Your task to perform on an android device: Open Reddit.com Image 0: 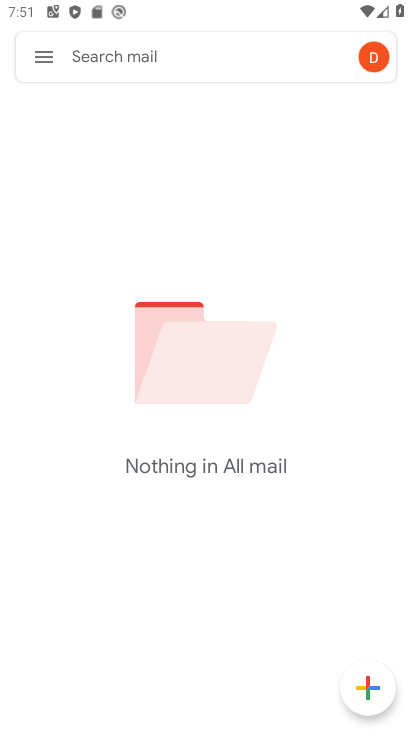
Step 0: press home button
Your task to perform on an android device: Open Reddit.com Image 1: 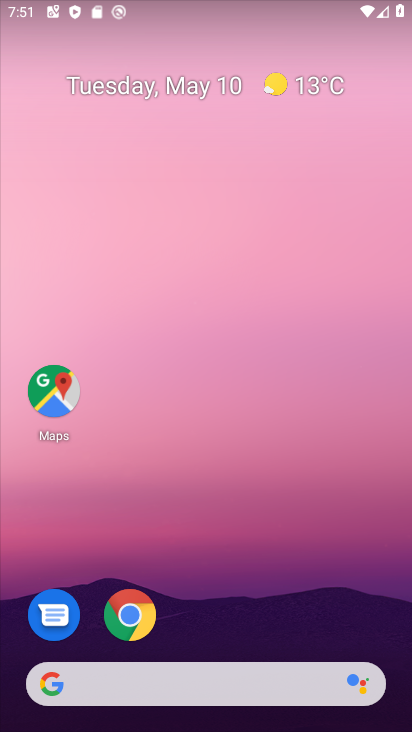
Step 1: click (132, 615)
Your task to perform on an android device: Open Reddit.com Image 2: 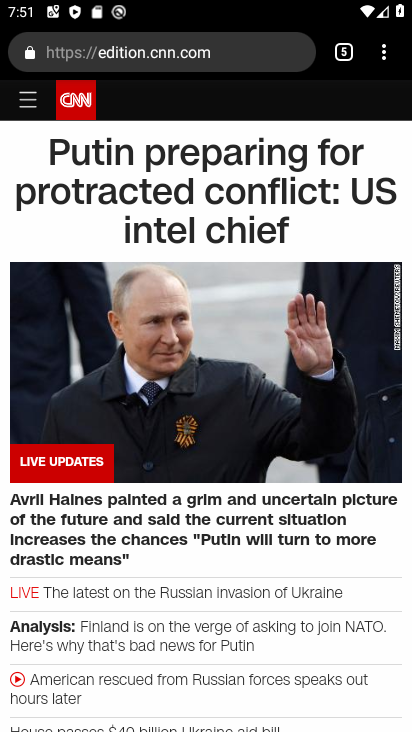
Step 2: click (382, 53)
Your task to perform on an android device: Open Reddit.com Image 3: 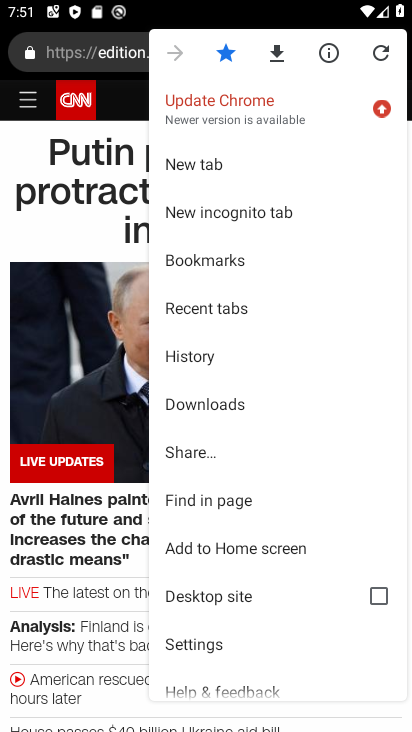
Step 3: click (199, 164)
Your task to perform on an android device: Open Reddit.com Image 4: 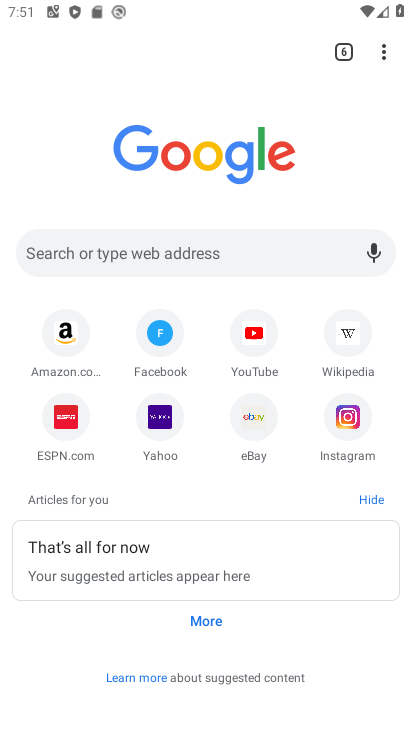
Step 4: click (209, 252)
Your task to perform on an android device: Open Reddit.com Image 5: 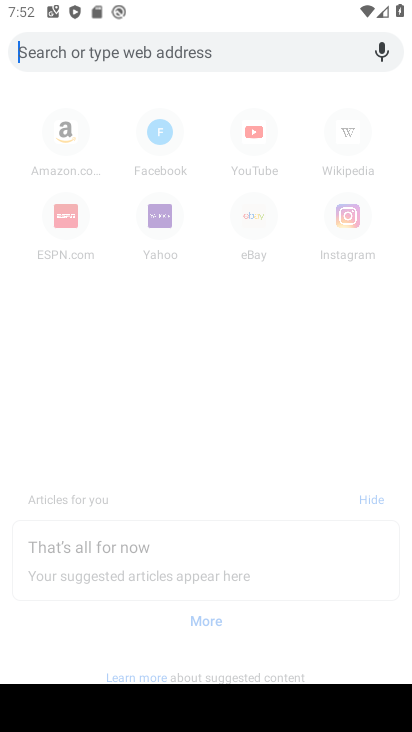
Step 5: type "reddit.com"
Your task to perform on an android device: Open Reddit.com Image 6: 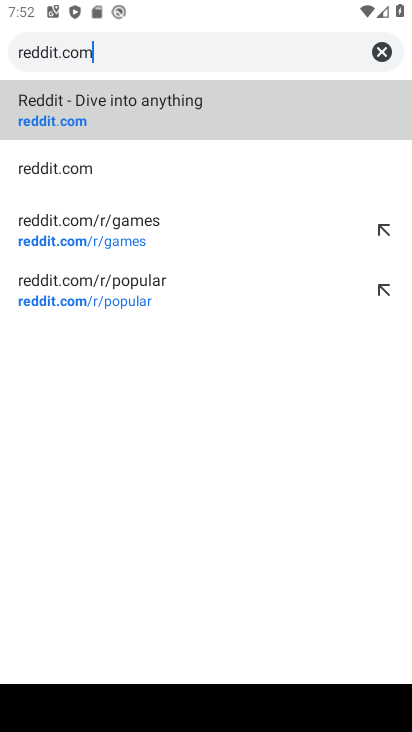
Step 6: click (94, 122)
Your task to perform on an android device: Open Reddit.com Image 7: 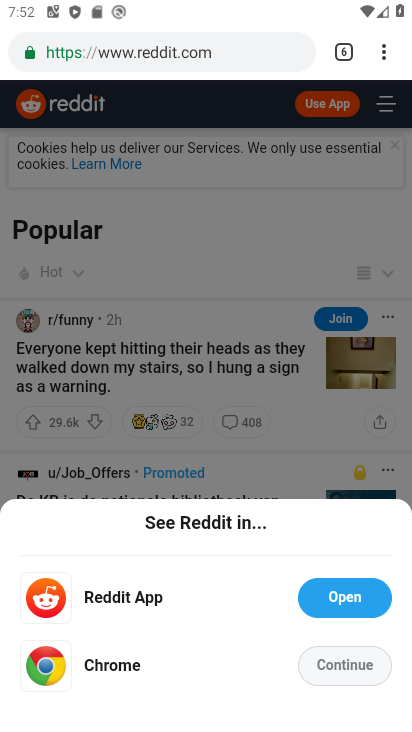
Step 7: task complete